Your task to perform on an android device: open a new tab in the chrome app Image 0: 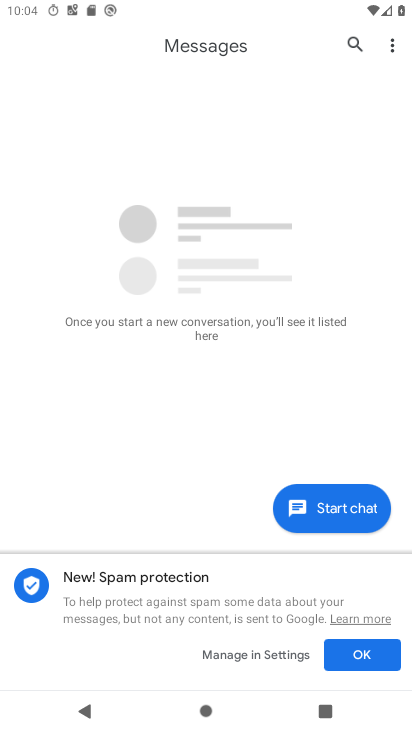
Step 0: press home button
Your task to perform on an android device: open a new tab in the chrome app Image 1: 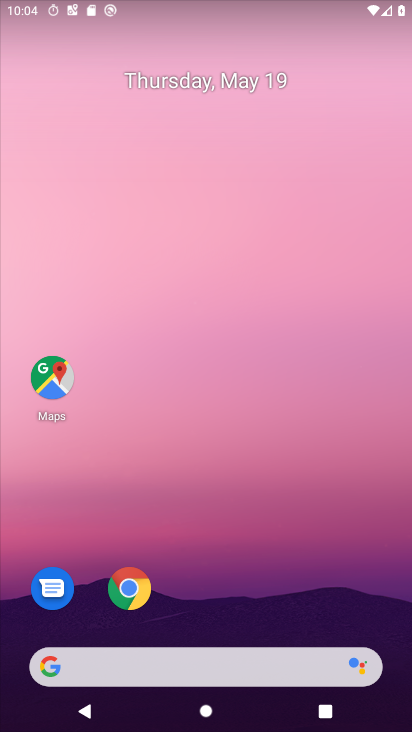
Step 1: click (138, 589)
Your task to perform on an android device: open a new tab in the chrome app Image 2: 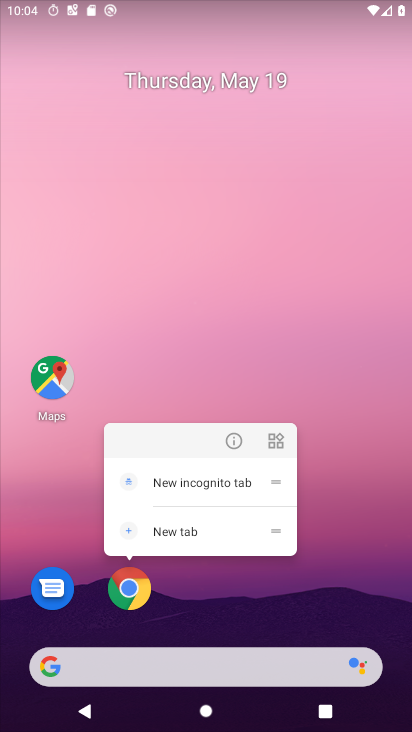
Step 2: click (128, 597)
Your task to perform on an android device: open a new tab in the chrome app Image 3: 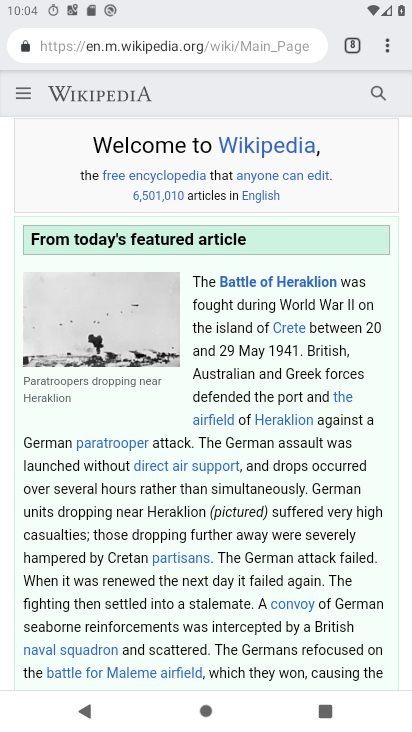
Step 3: task complete